Your task to perform on an android device: change the clock display to digital Image 0: 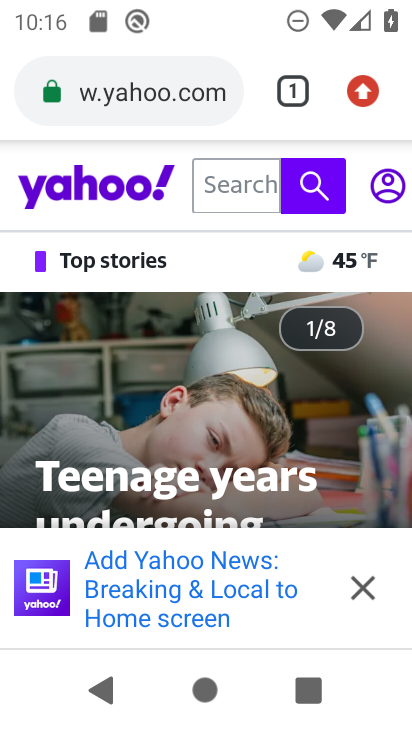
Step 0: drag from (182, 591) to (261, 359)
Your task to perform on an android device: change the clock display to digital Image 1: 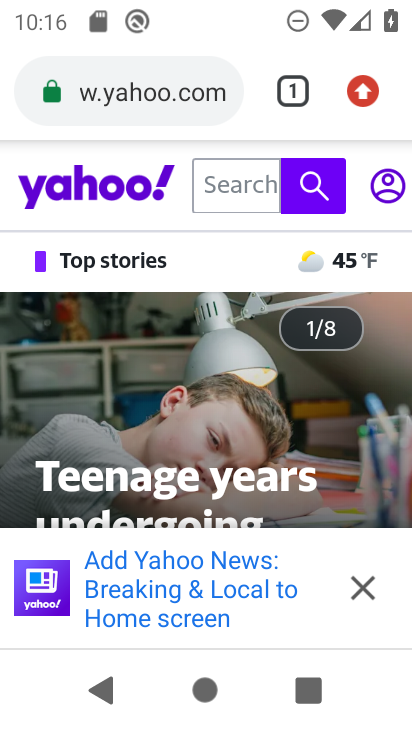
Step 1: press home button
Your task to perform on an android device: change the clock display to digital Image 2: 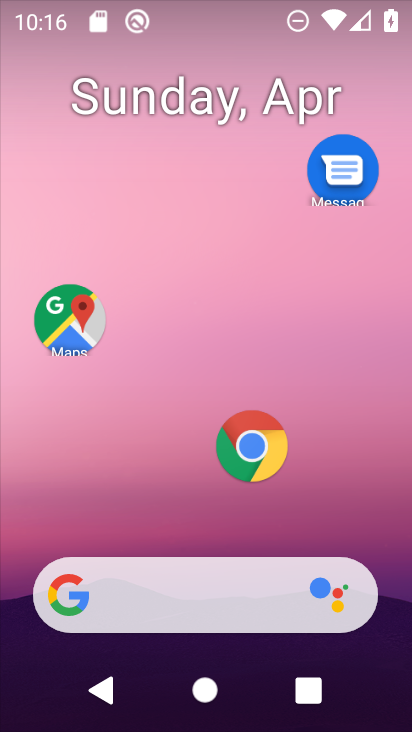
Step 2: drag from (201, 540) to (175, 145)
Your task to perform on an android device: change the clock display to digital Image 3: 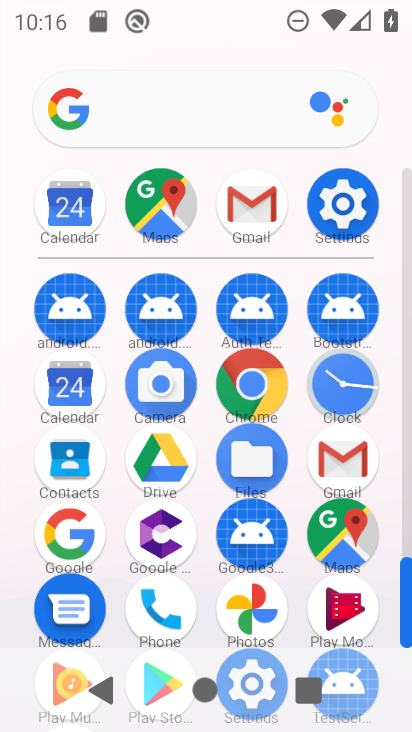
Step 3: click (336, 376)
Your task to perform on an android device: change the clock display to digital Image 4: 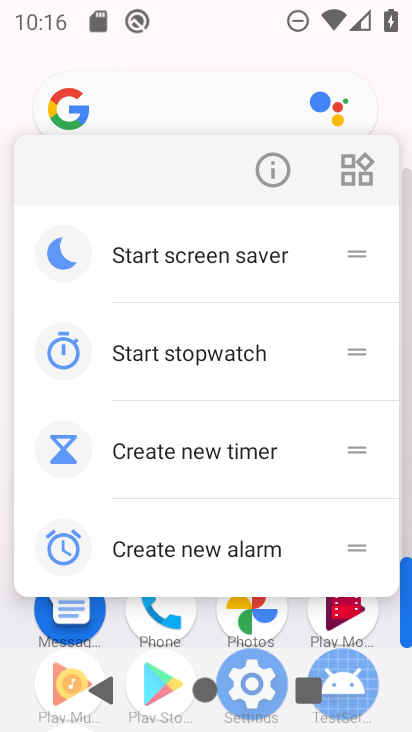
Step 4: click (272, 181)
Your task to perform on an android device: change the clock display to digital Image 5: 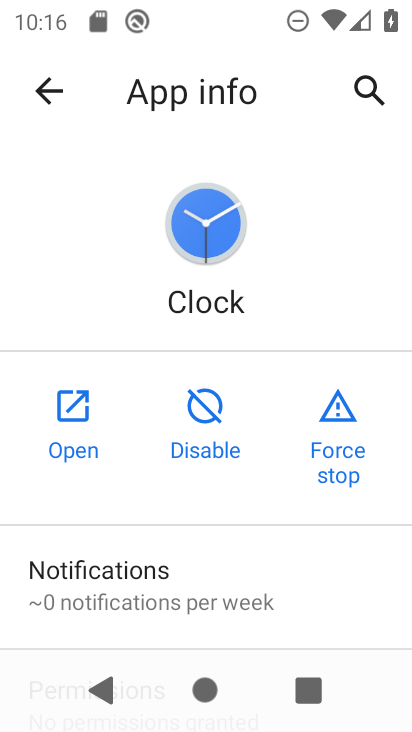
Step 5: click (58, 418)
Your task to perform on an android device: change the clock display to digital Image 6: 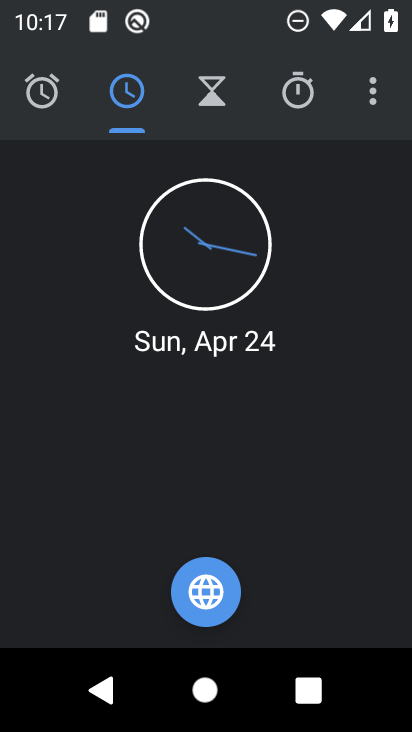
Step 6: click (363, 110)
Your task to perform on an android device: change the clock display to digital Image 7: 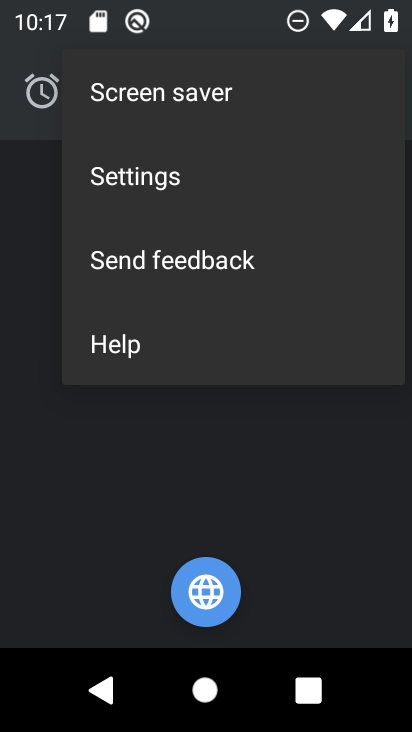
Step 7: click (149, 170)
Your task to perform on an android device: change the clock display to digital Image 8: 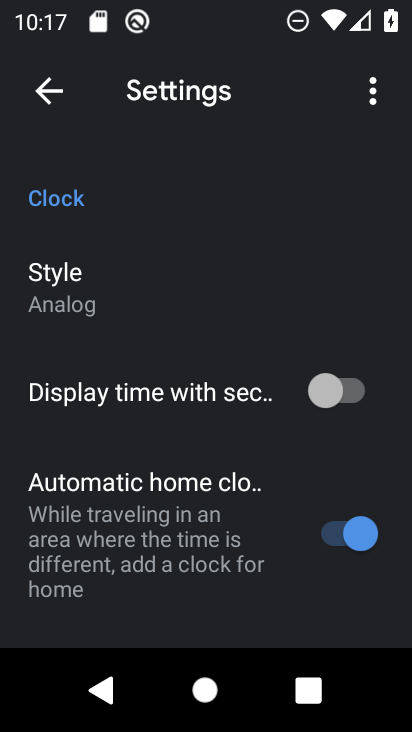
Step 8: click (160, 289)
Your task to perform on an android device: change the clock display to digital Image 9: 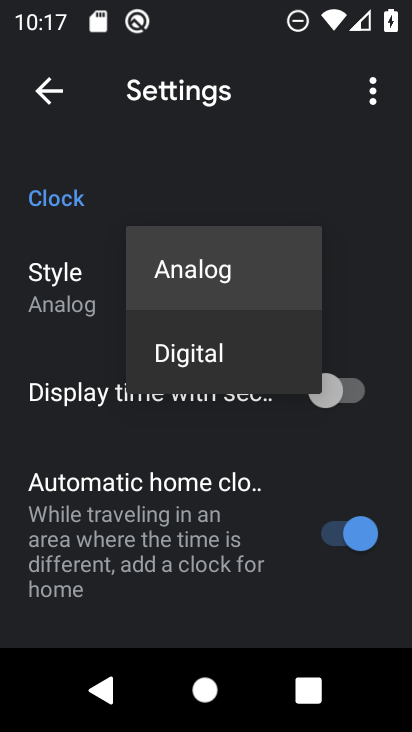
Step 9: click (187, 349)
Your task to perform on an android device: change the clock display to digital Image 10: 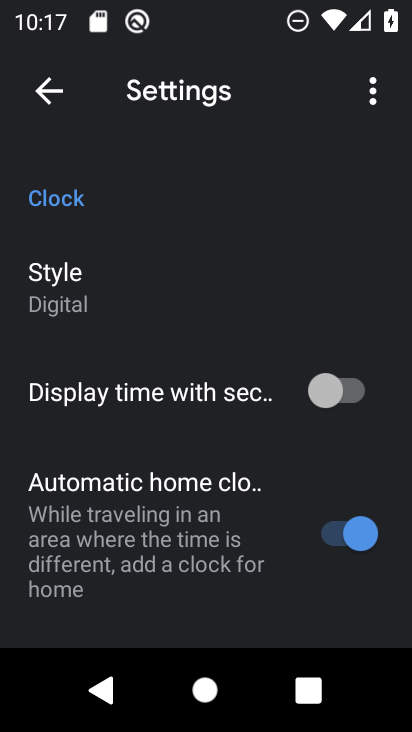
Step 10: task complete